Your task to perform on an android device: change keyboard looks Image 0: 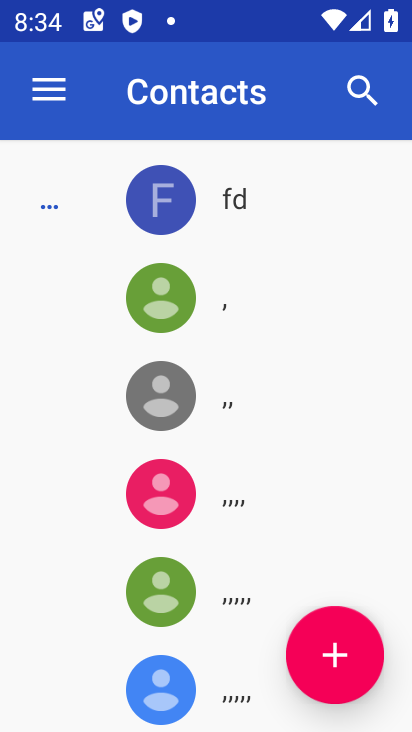
Step 0: press home button
Your task to perform on an android device: change keyboard looks Image 1: 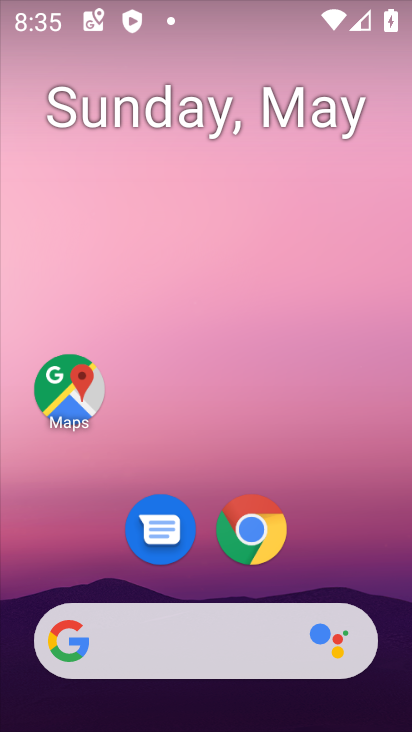
Step 1: drag from (352, 586) to (233, 4)
Your task to perform on an android device: change keyboard looks Image 2: 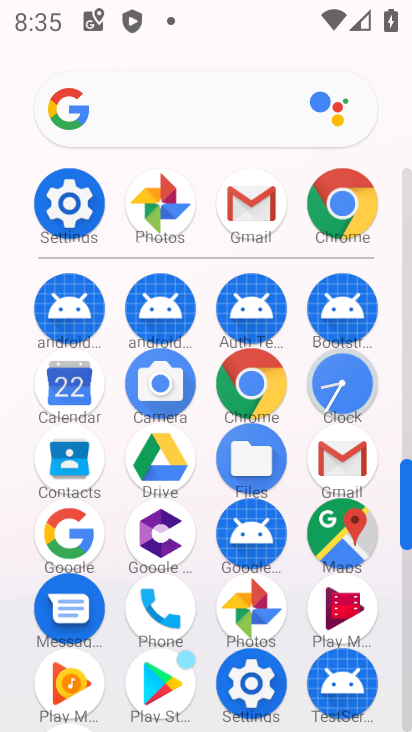
Step 2: click (70, 211)
Your task to perform on an android device: change keyboard looks Image 3: 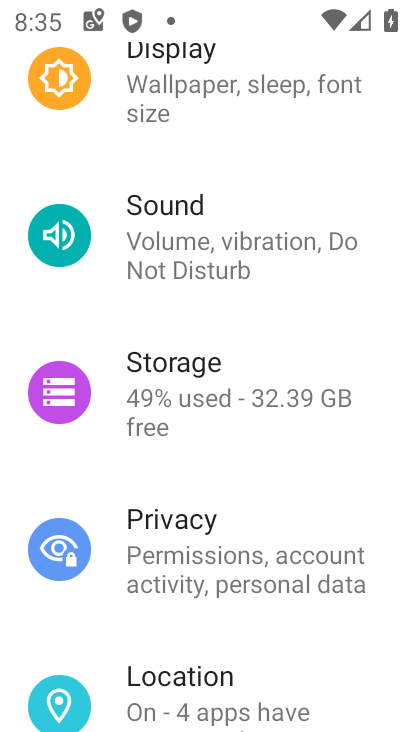
Step 3: drag from (372, 666) to (329, 4)
Your task to perform on an android device: change keyboard looks Image 4: 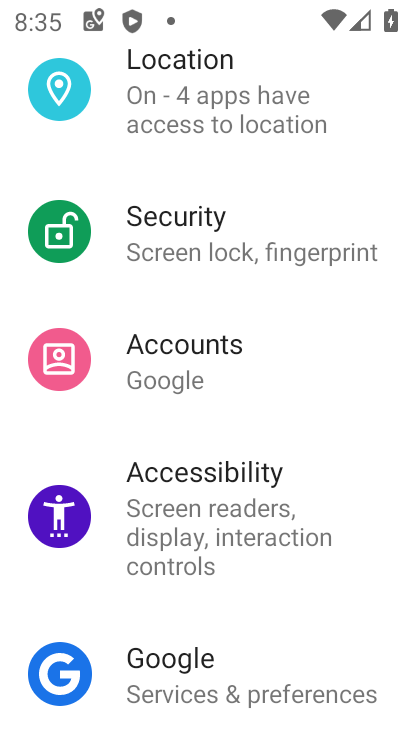
Step 4: drag from (311, 617) to (312, 45)
Your task to perform on an android device: change keyboard looks Image 5: 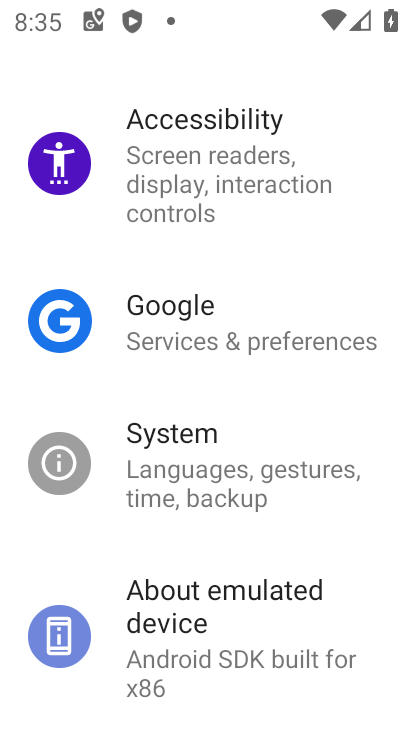
Step 5: click (158, 491)
Your task to perform on an android device: change keyboard looks Image 6: 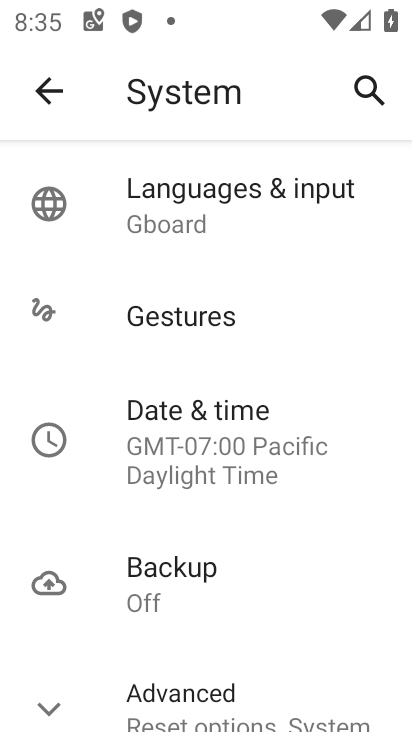
Step 6: click (171, 220)
Your task to perform on an android device: change keyboard looks Image 7: 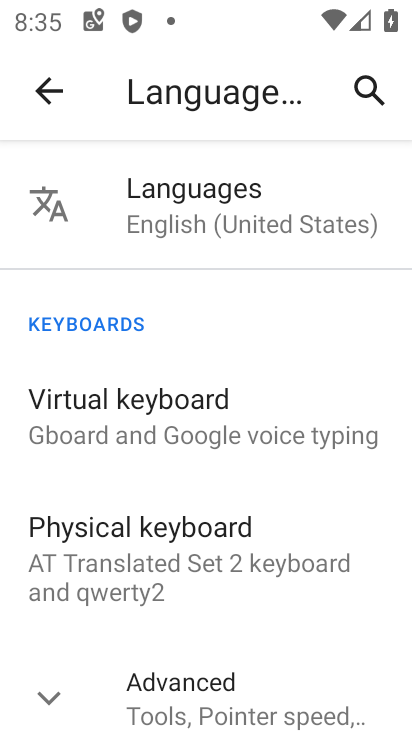
Step 7: click (105, 425)
Your task to perform on an android device: change keyboard looks Image 8: 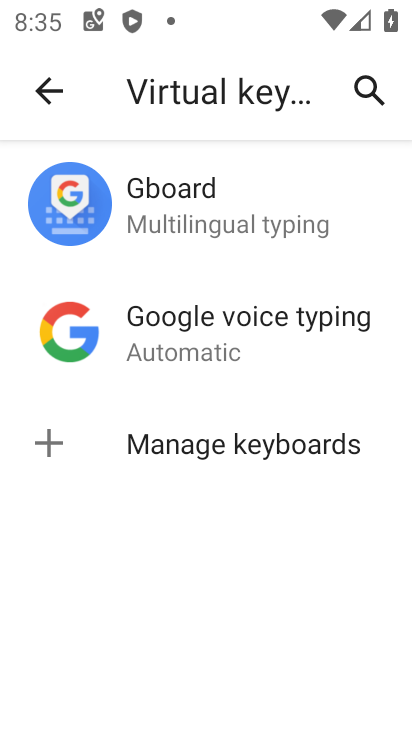
Step 8: click (93, 219)
Your task to perform on an android device: change keyboard looks Image 9: 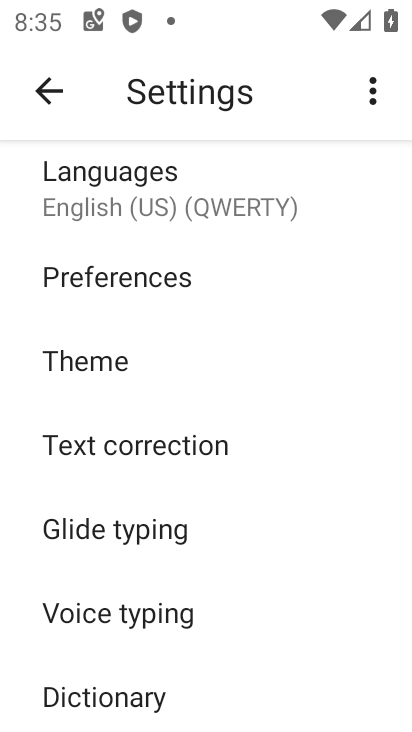
Step 9: click (91, 370)
Your task to perform on an android device: change keyboard looks Image 10: 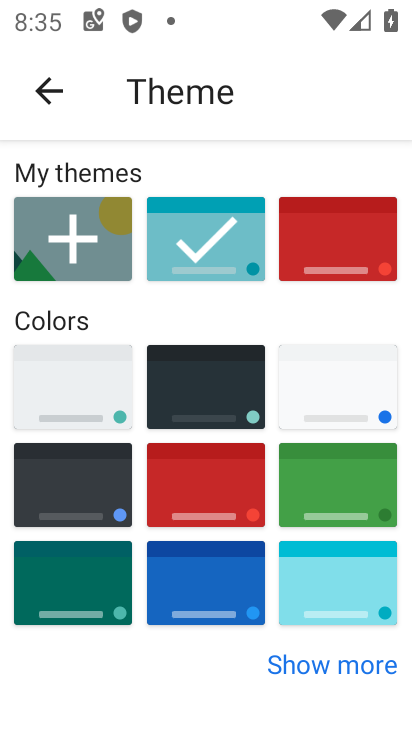
Step 10: click (300, 492)
Your task to perform on an android device: change keyboard looks Image 11: 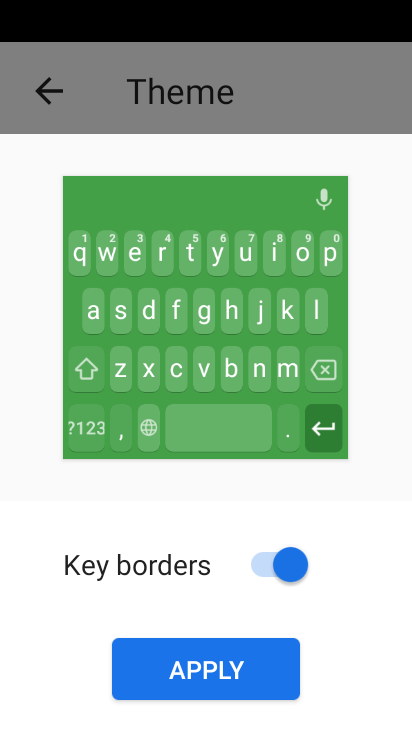
Step 11: click (213, 669)
Your task to perform on an android device: change keyboard looks Image 12: 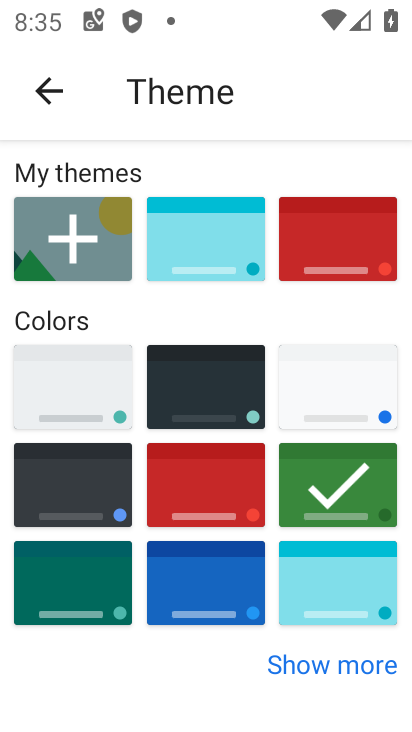
Step 12: task complete